Your task to perform on an android device: Open the calendar app, open the side menu, and click the "Day" option Image 0: 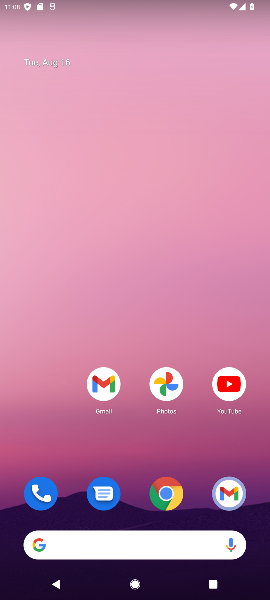
Step 0: drag from (121, 536) to (126, 221)
Your task to perform on an android device: Open the calendar app, open the side menu, and click the "Day" option Image 1: 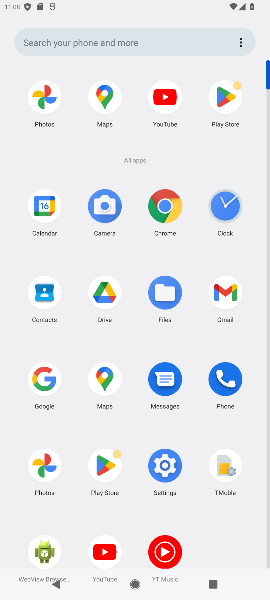
Step 1: click (31, 205)
Your task to perform on an android device: Open the calendar app, open the side menu, and click the "Day" option Image 2: 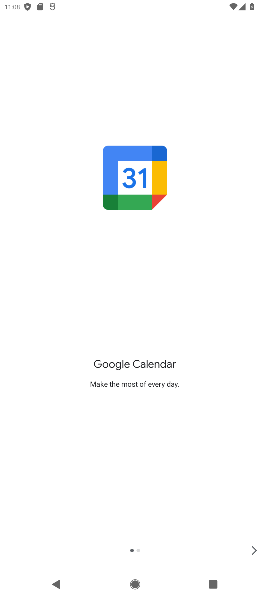
Step 2: click (238, 554)
Your task to perform on an android device: Open the calendar app, open the side menu, and click the "Day" option Image 3: 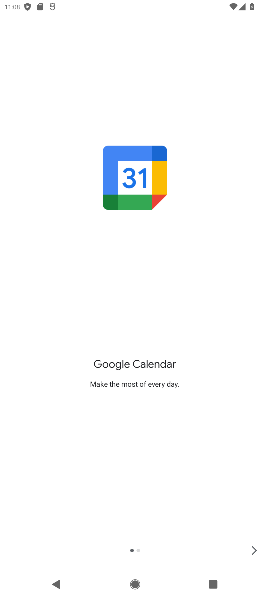
Step 3: click (250, 554)
Your task to perform on an android device: Open the calendar app, open the side menu, and click the "Day" option Image 4: 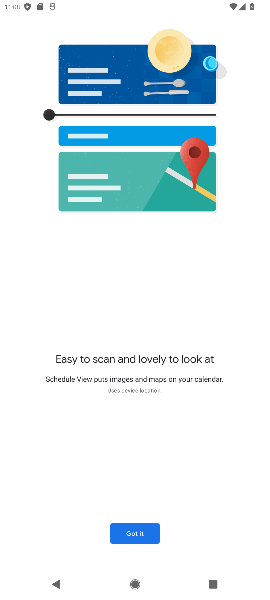
Step 4: click (250, 552)
Your task to perform on an android device: Open the calendar app, open the side menu, and click the "Day" option Image 5: 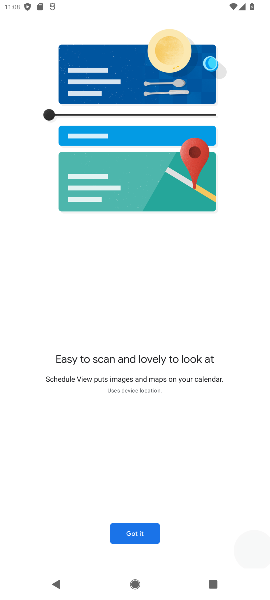
Step 5: click (130, 533)
Your task to perform on an android device: Open the calendar app, open the side menu, and click the "Day" option Image 6: 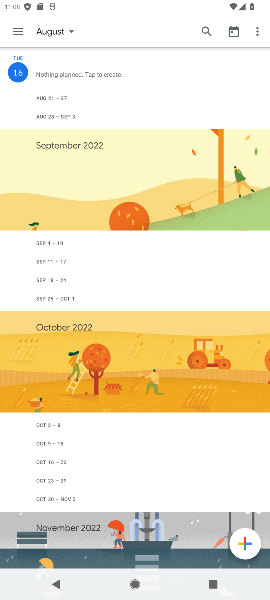
Step 6: click (19, 28)
Your task to perform on an android device: Open the calendar app, open the side menu, and click the "Day" option Image 7: 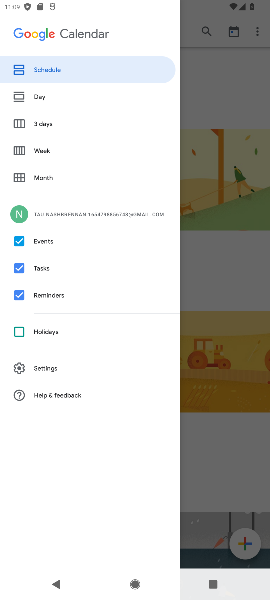
Step 7: click (41, 96)
Your task to perform on an android device: Open the calendar app, open the side menu, and click the "Day" option Image 8: 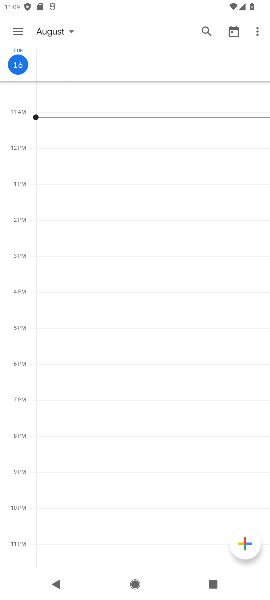
Step 8: task complete